Your task to perform on an android device: turn off priority inbox in the gmail app Image 0: 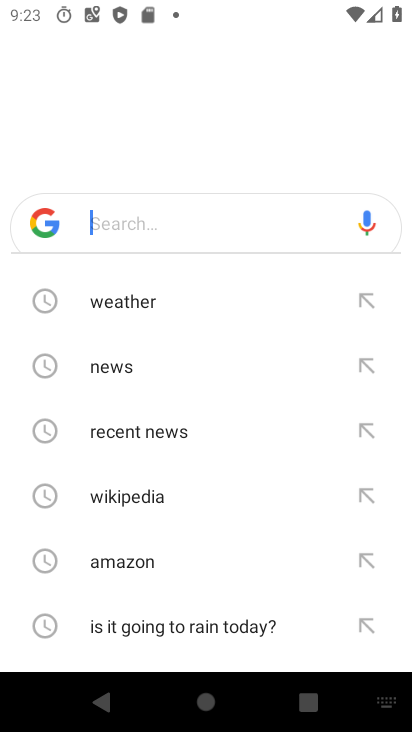
Step 0: press home button
Your task to perform on an android device: turn off priority inbox in the gmail app Image 1: 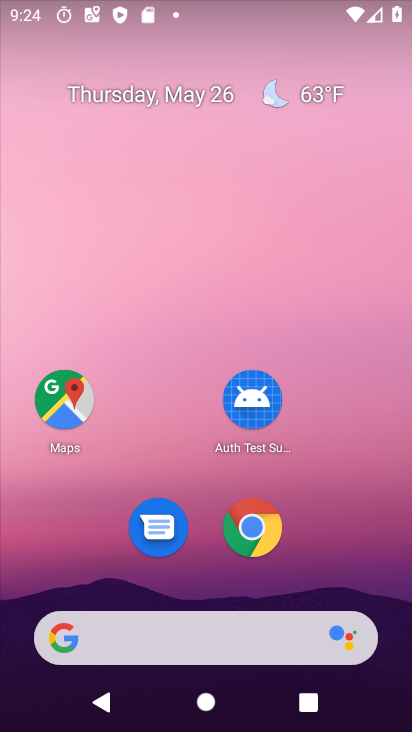
Step 1: drag from (356, 528) to (336, 35)
Your task to perform on an android device: turn off priority inbox in the gmail app Image 2: 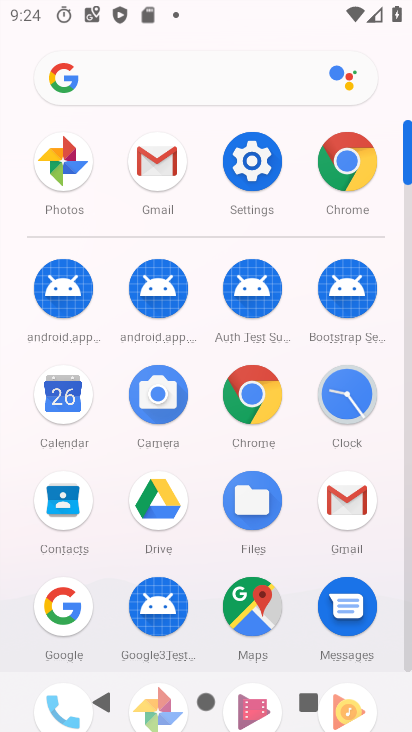
Step 2: click (164, 166)
Your task to perform on an android device: turn off priority inbox in the gmail app Image 3: 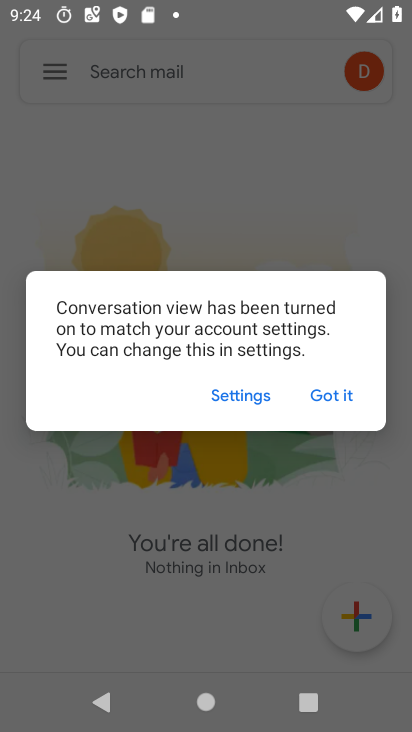
Step 3: click (332, 384)
Your task to perform on an android device: turn off priority inbox in the gmail app Image 4: 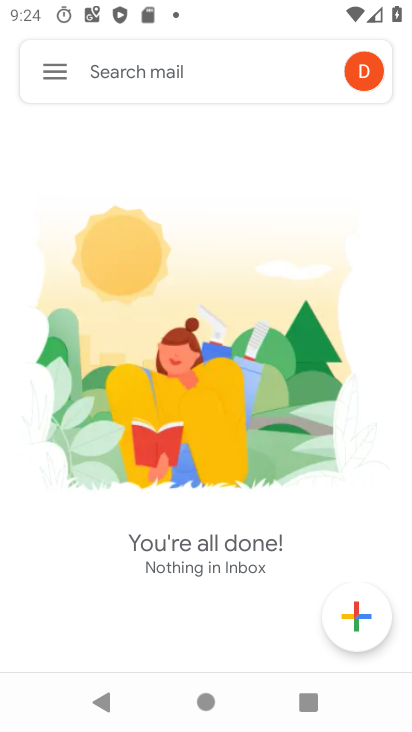
Step 4: click (48, 84)
Your task to perform on an android device: turn off priority inbox in the gmail app Image 5: 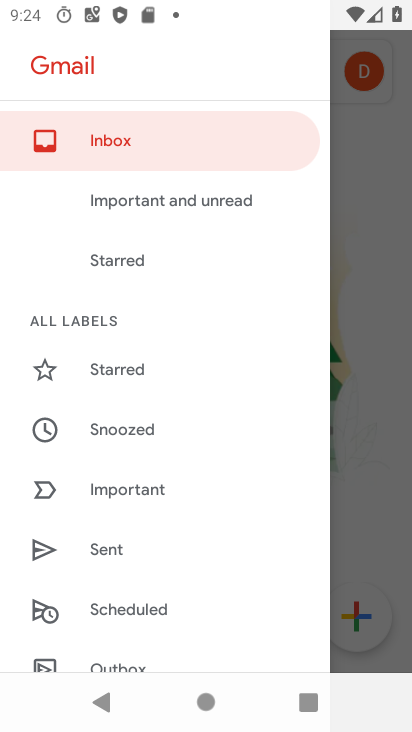
Step 5: drag from (159, 550) to (151, 97)
Your task to perform on an android device: turn off priority inbox in the gmail app Image 6: 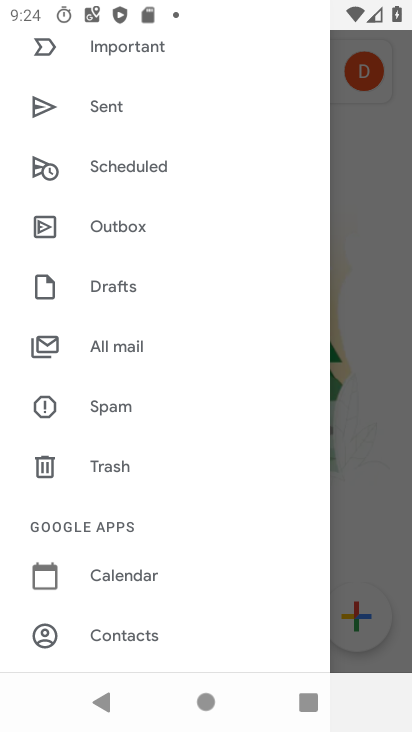
Step 6: drag from (146, 551) to (208, 57)
Your task to perform on an android device: turn off priority inbox in the gmail app Image 7: 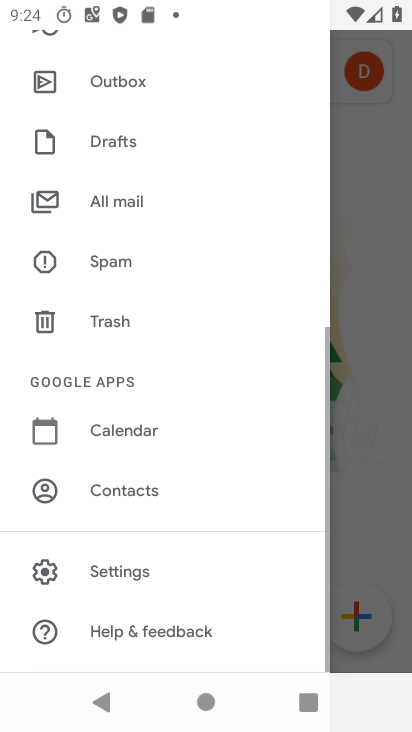
Step 7: click (141, 566)
Your task to perform on an android device: turn off priority inbox in the gmail app Image 8: 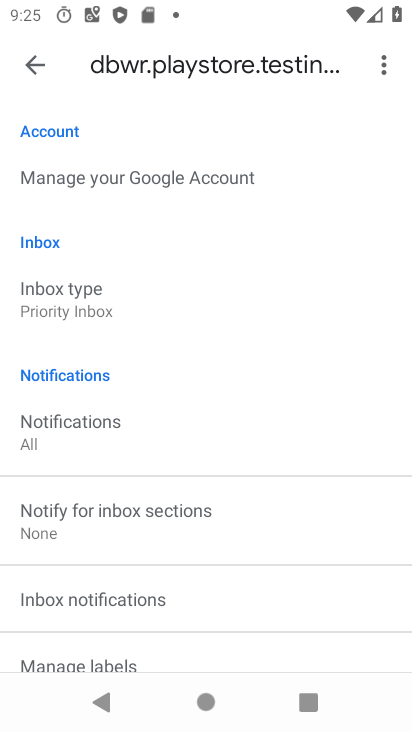
Step 8: task complete